Your task to perform on an android device: see creations saved in the google photos Image 0: 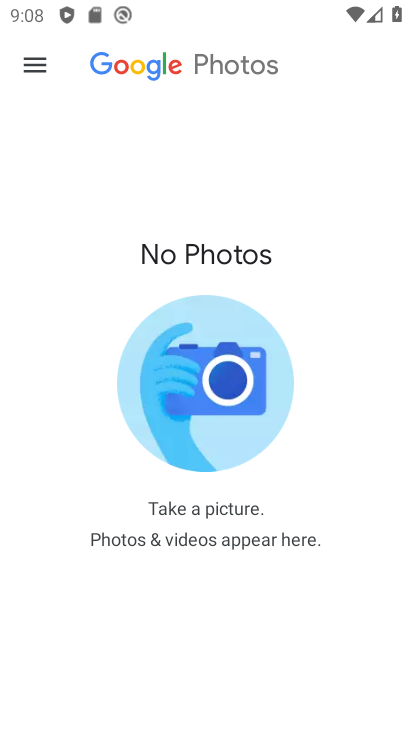
Step 0: press home button
Your task to perform on an android device: see creations saved in the google photos Image 1: 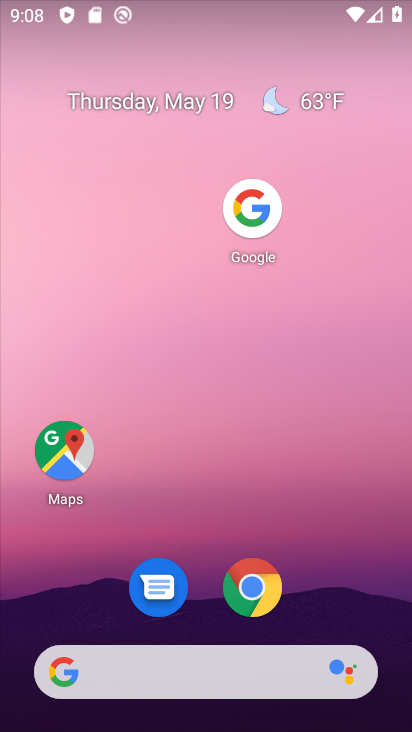
Step 1: drag from (211, 632) to (160, 36)
Your task to perform on an android device: see creations saved in the google photos Image 2: 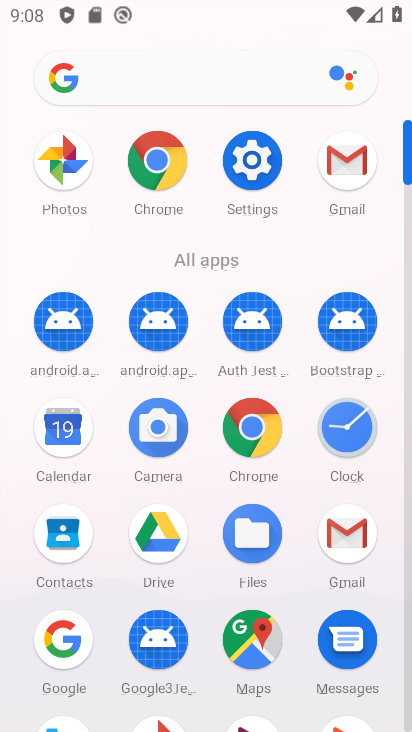
Step 2: drag from (126, 713) to (98, 501)
Your task to perform on an android device: see creations saved in the google photos Image 3: 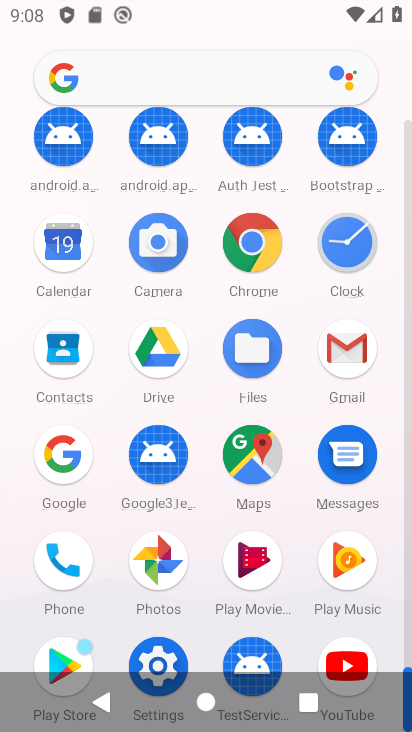
Step 3: click (149, 557)
Your task to perform on an android device: see creations saved in the google photos Image 4: 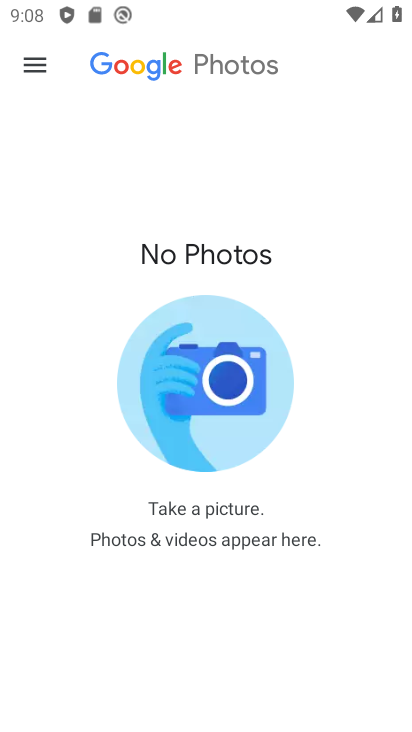
Step 4: click (40, 55)
Your task to perform on an android device: see creations saved in the google photos Image 5: 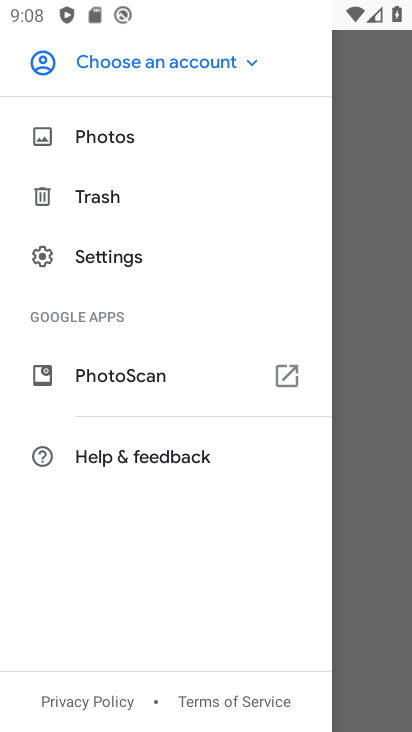
Step 5: click (106, 64)
Your task to perform on an android device: see creations saved in the google photos Image 6: 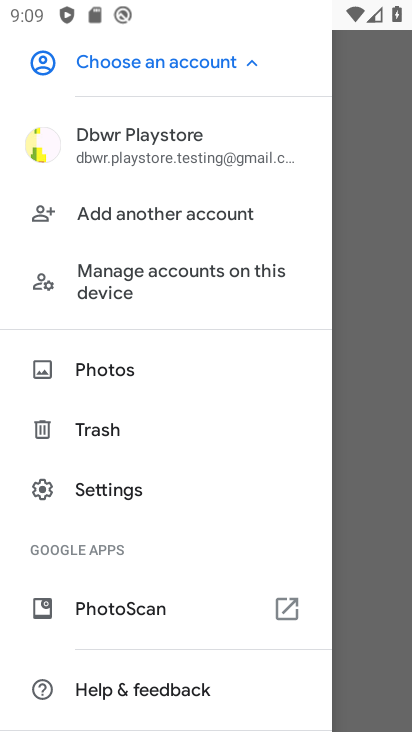
Step 6: click (134, 490)
Your task to perform on an android device: see creations saved in the google photos Image 7: 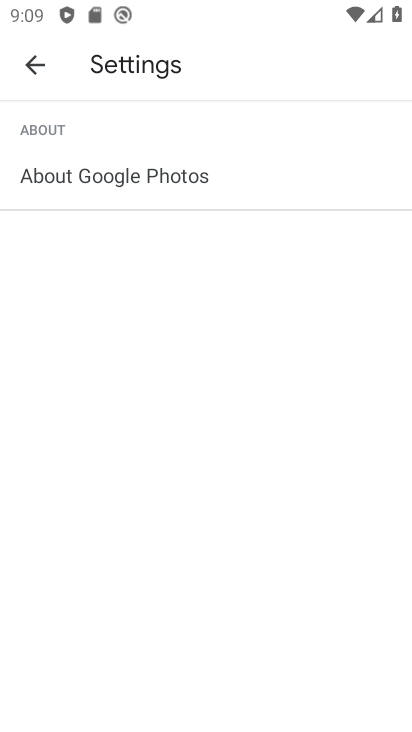
Step 7: click (39, 71)
Your task to perform on an android device: see creations saved in the google photos Image 8: 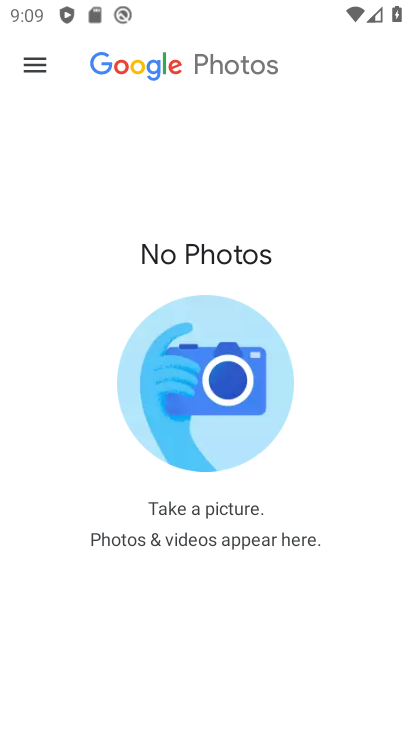
Step 8: click (37, 73)
Your task to perform on an android device: see creations saved in the google photos Image 9: 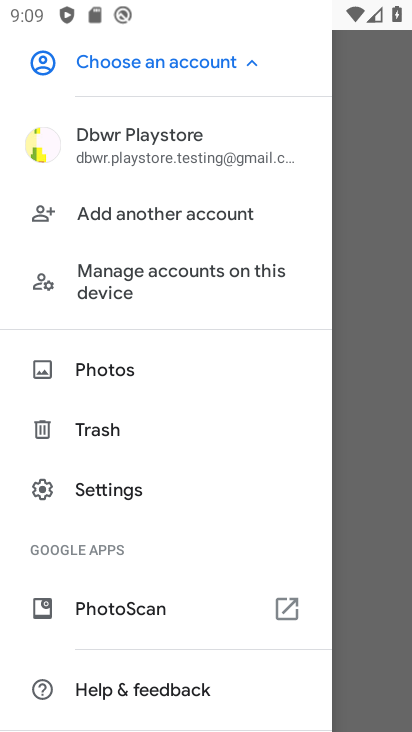
Step 9: click (99, 69)
Your task to perform on an android device: see creations saved in the google photos Image 10: 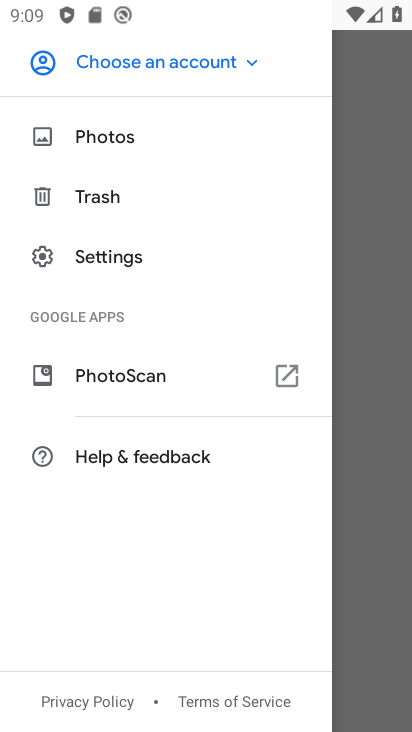
Step 10: click (68, 62)
Your task to perform on an android device: see creations saved in the google photos Image 11: 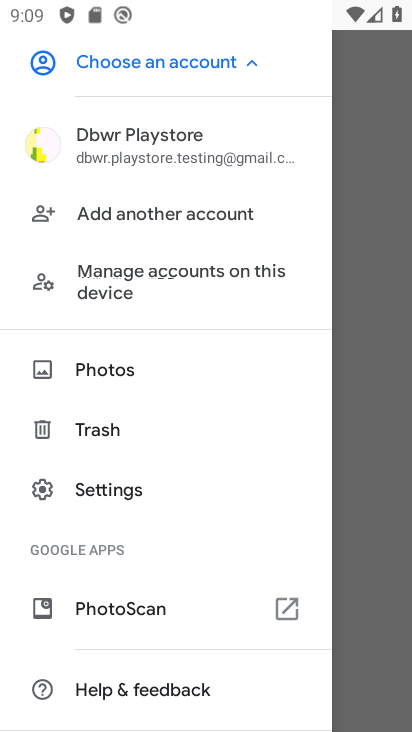
Step 11: click (121, 157)
Your task to perform on an android device: see creations saved in the google photos Image 12: 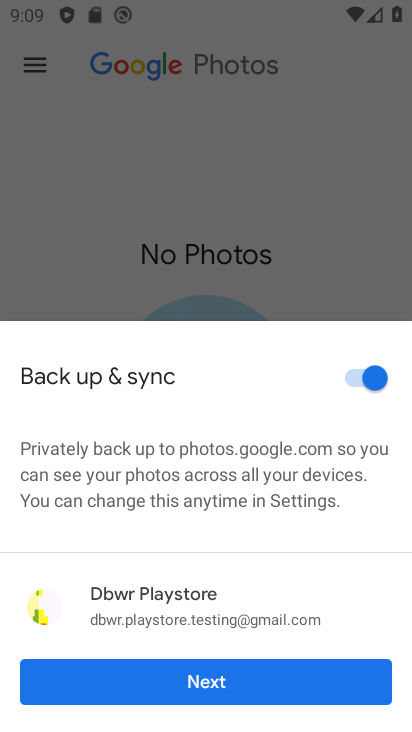
Step 12: click (200, 677)
Your task to perform on an android device: see creations saved in the google photos Image 13: 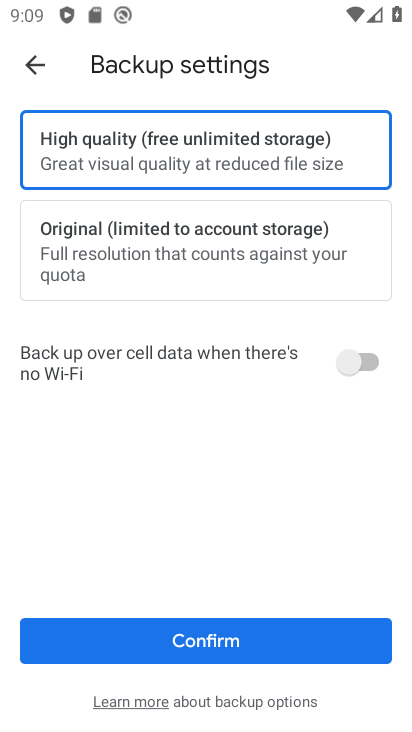
Step 13: click (203, 647)
Your task to perform on an android device: see creations saved in the google photos Image 14: 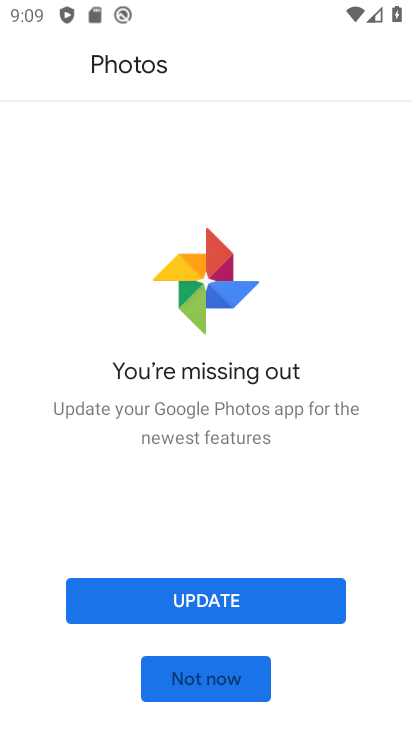
Step 14: click (155, 85)
Your task to perform on an android device: see creations saved in the google photos Image 15: 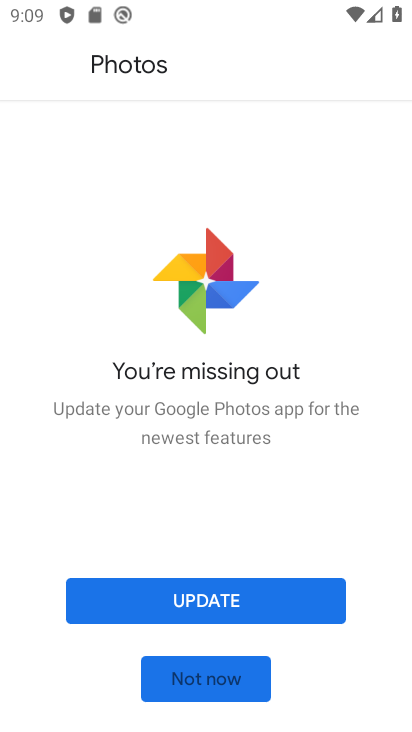
Step 15: click (185, 693)
Your task to perform on an android device: see creations saved in the google photos Image 16: 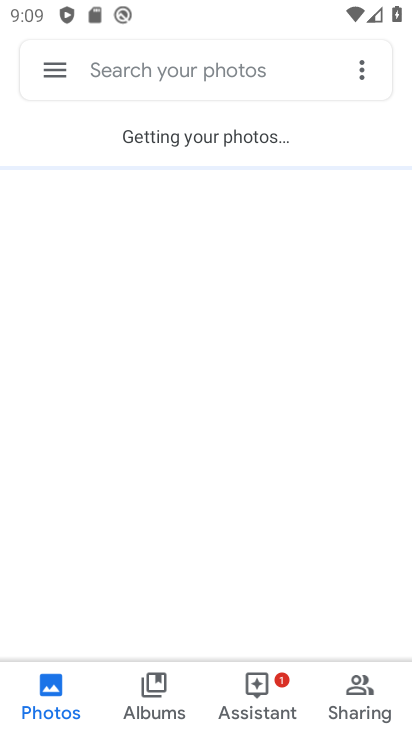
Step 16: click (180, 86)
Your task to perform on an android device: see creations saved in the google photos Image 17: 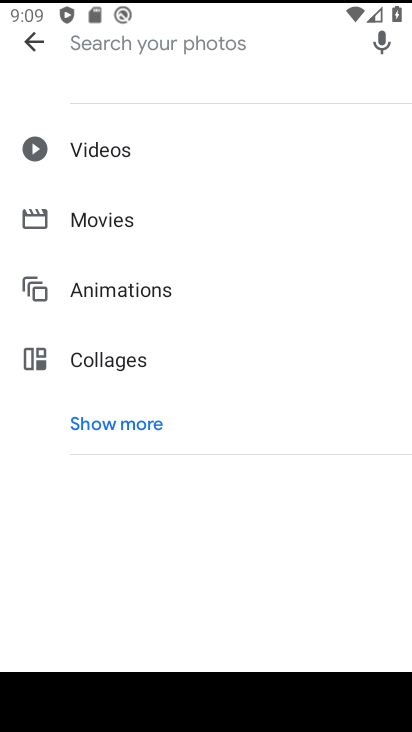
Step 17: click (126, 425)
Your task to perform on an android device: see creations saved in the google photos Image 18: 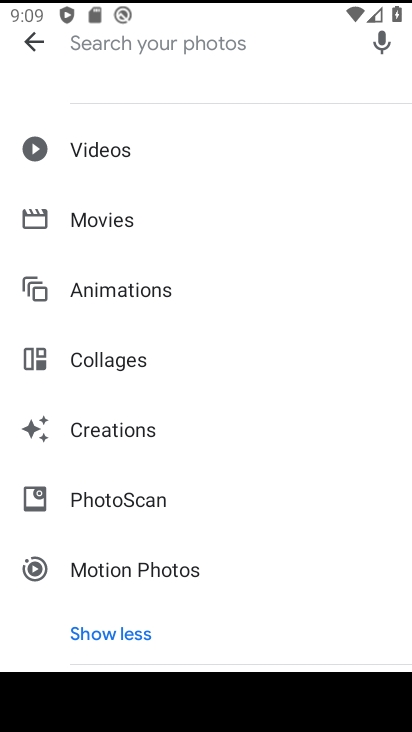
Step 18: click (110, 437)
Your task to perform on an android device: see creations saved in the google photos Image 19: 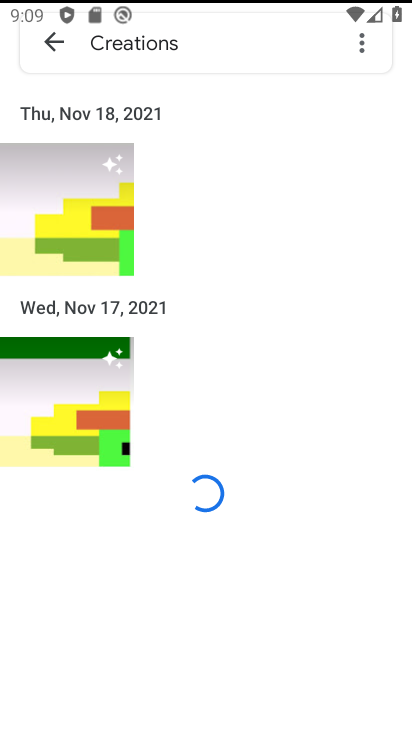
Step 19: task complete